Your task to perform on an android device: What's the weather? Image 0: 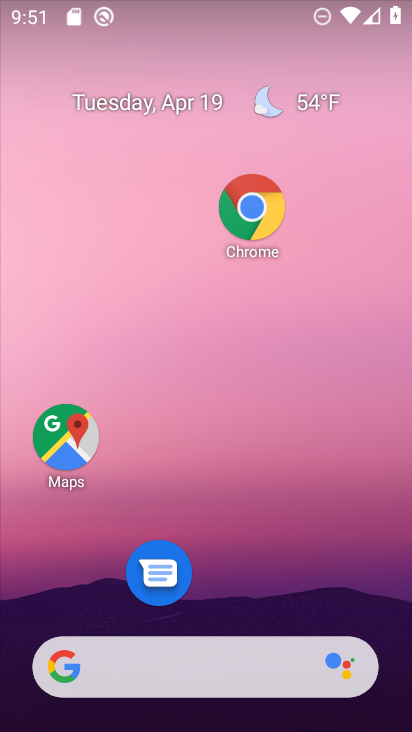
Step 0: drag from (219, 616) to (278, 221)
Your task to perform on an android device: What's the weather? Image 1: 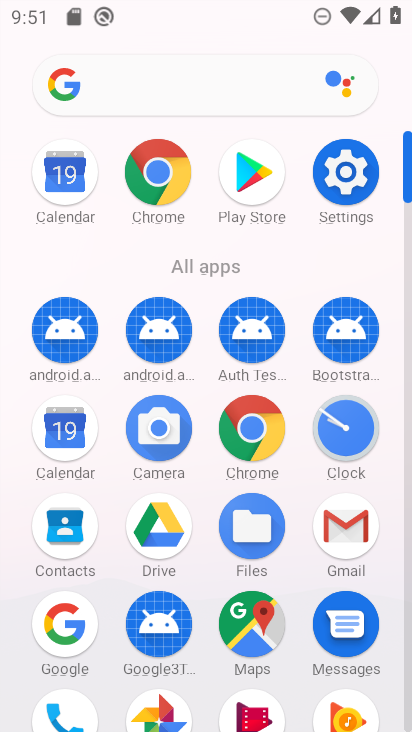
Step 1: click (220, 373)
Your task to perform on an android device: What's the weather? Image 2: 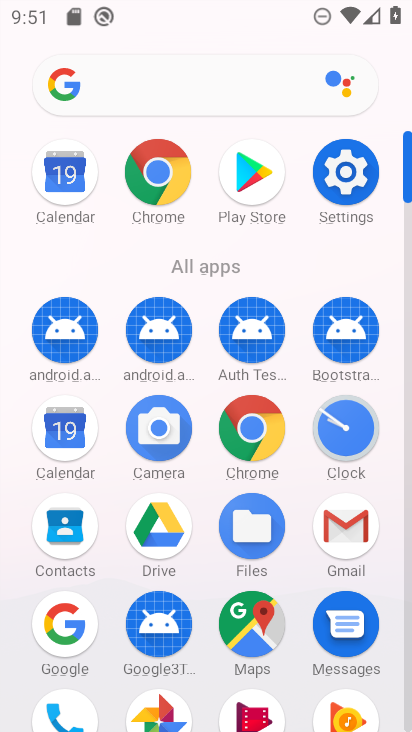
Step 2: click (56, 633)
Your task to perform on an android device: What's the weather? Image 3: 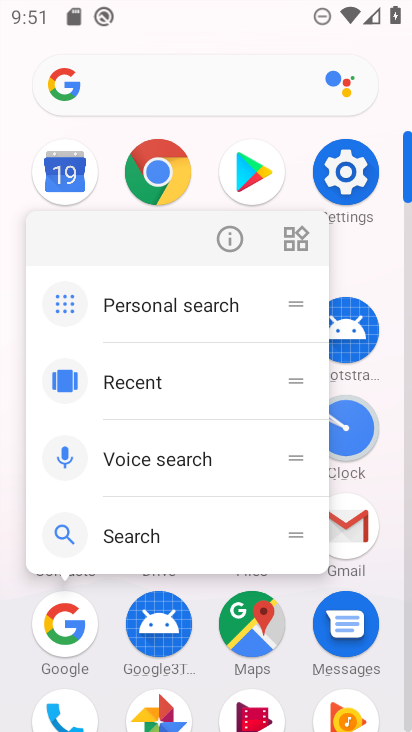
Step 3: click (71, 624)
Your task to perform on an android device: What's the weather? Image 4: 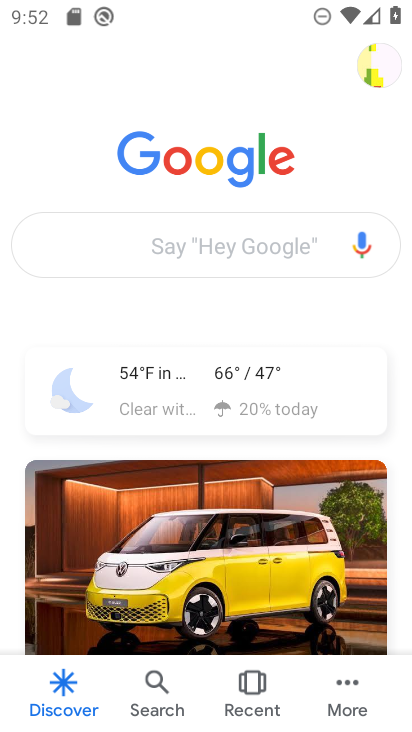
Step 4: click (268, 392)
Your task to perform on an android device: What's the weather? Image 5: 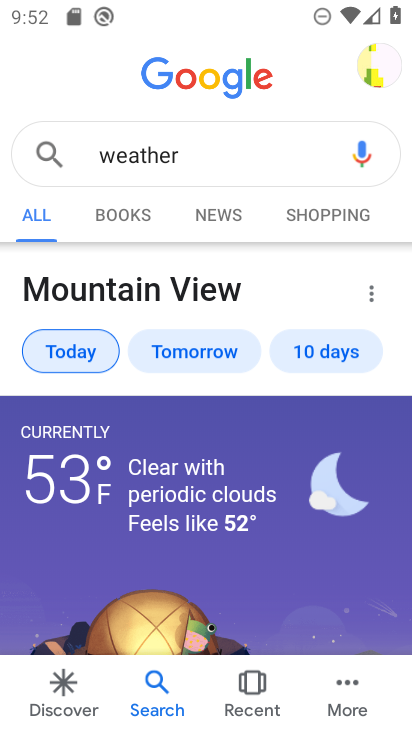
Step 5: task complete